Your task to perform on an android device: set an alarm Image 0: 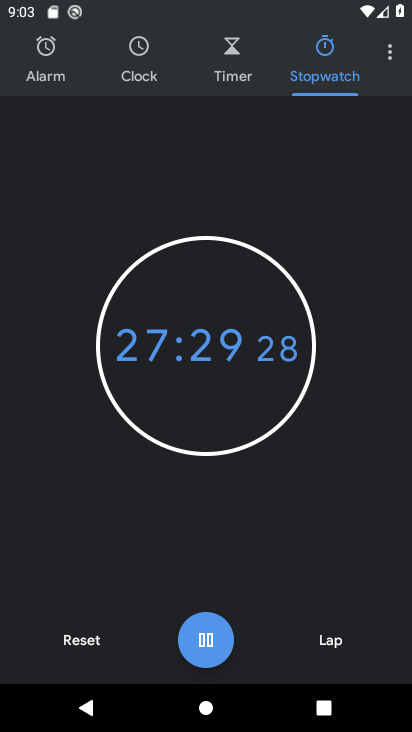
Step 0: click (52, 67)
Your task to perform on an android device: set an alarm Image 1: 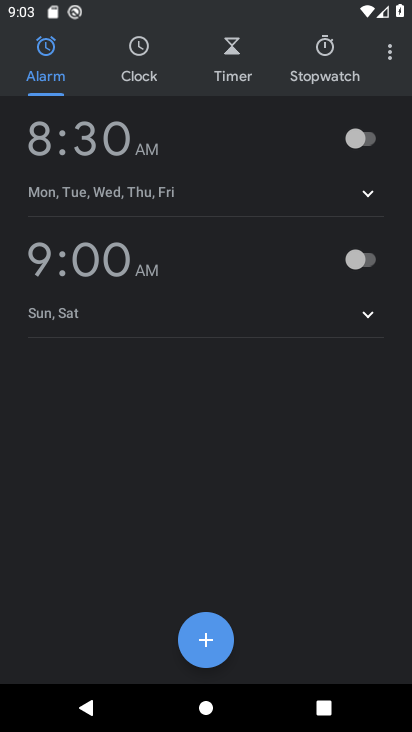
Step 1: click (363, 152)
Your task to perform on an android device: set an alarm Image 2: 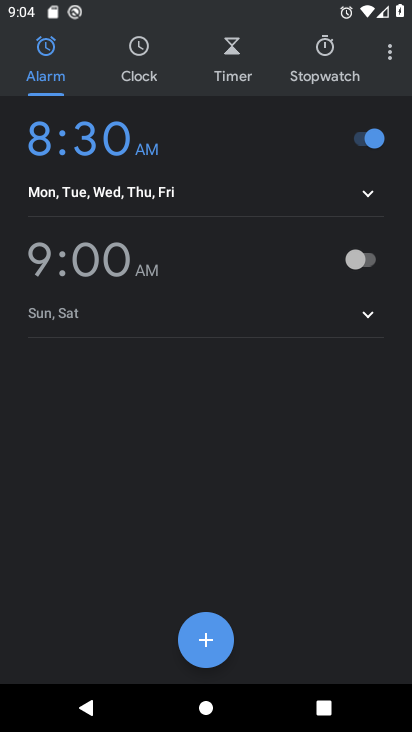
Step 2: task complete